Your task to perform on an android device: Open sound settings Image 0: 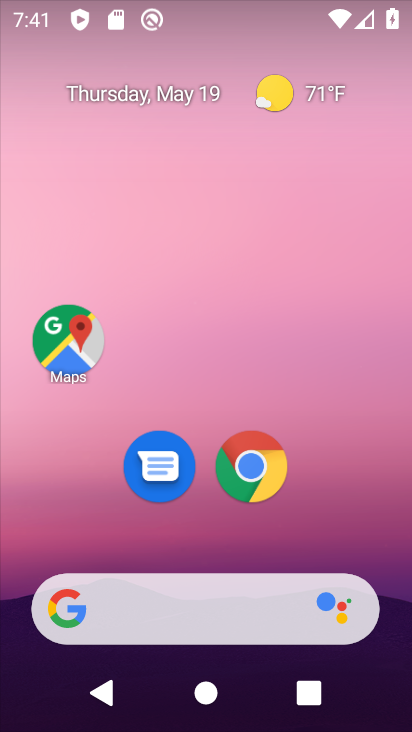
Step 0: drag from (350, 488) to (9, 488)
Your task to perform on an android device: Open sound settings Image 1: 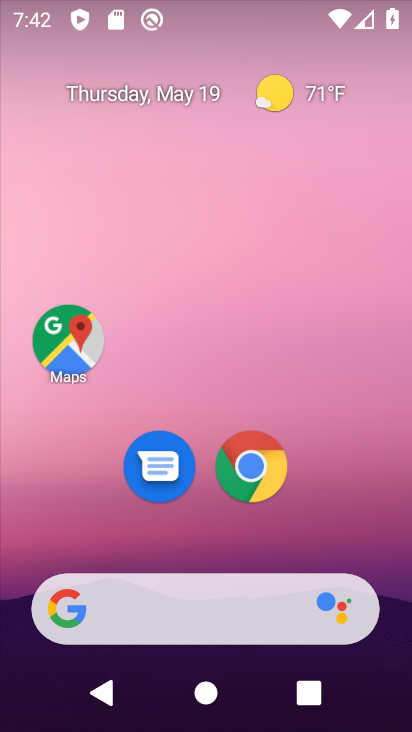
Step 1: drag from (392, 659) to (334, 0)
Your task to perform on an android device: Open sound settings Image 2: 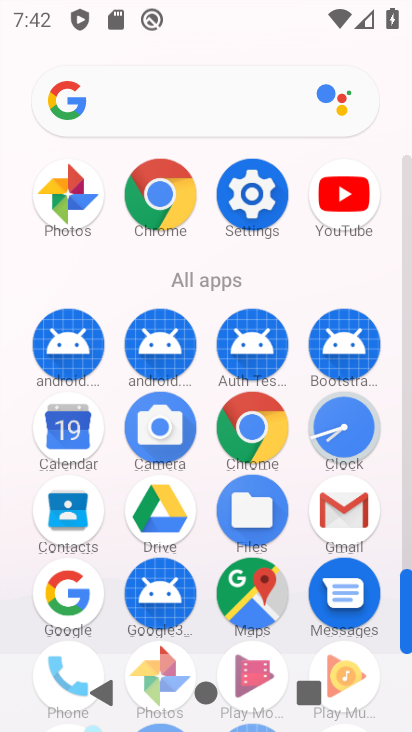
Step 2: click (249, 195)
Your task to perform on an android device: Open sound settings Image 3: 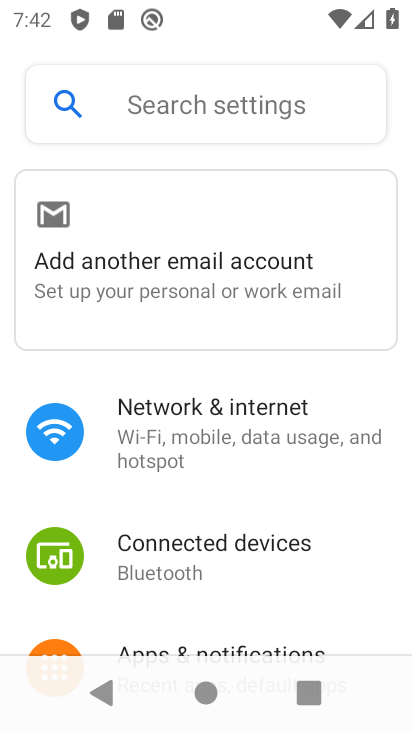
Step 3: drag from (248, 573) to (268, 175)
Your task to perform on an android device: Open sound settings Image 4: 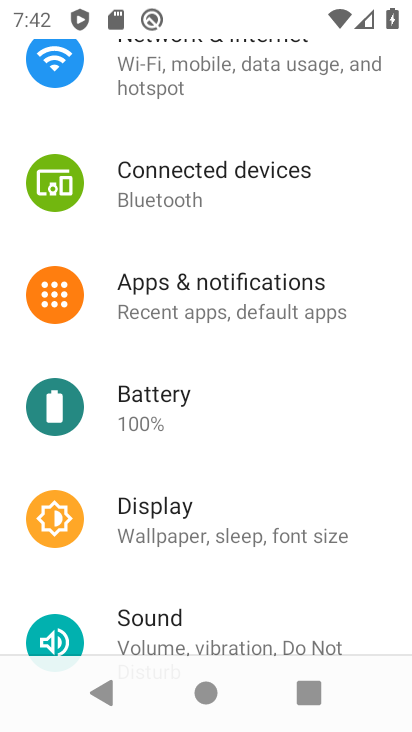
Step 4: click (200, 615)
Your task to perform on an android device: Open sound settings Image 5: 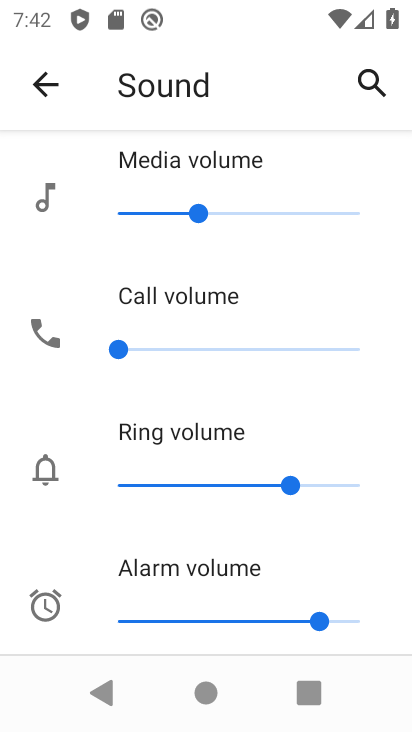
Step 5: task complete